Your task to perform on an android device: What's the weather going to be tomorrow? Image 0: 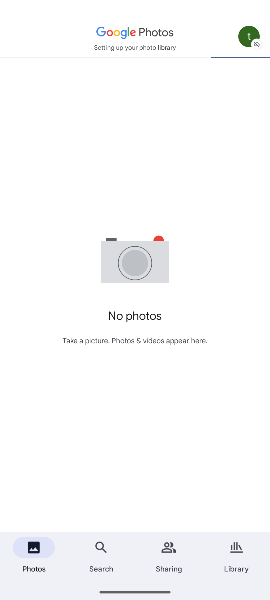
Step 0: press home button
Your task to perform on an android device: What's the weather going to be tomorrow? Image 1: 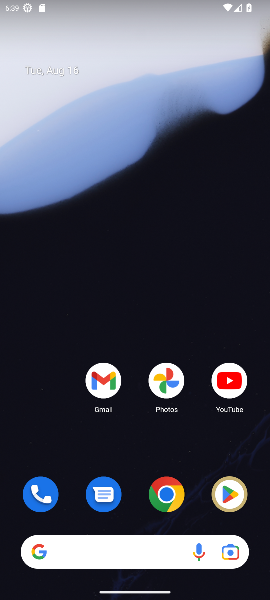
Step 1: click (85, 547)
Your task to perform on an android device: What's the weather going to be tomorrow? Image 2: 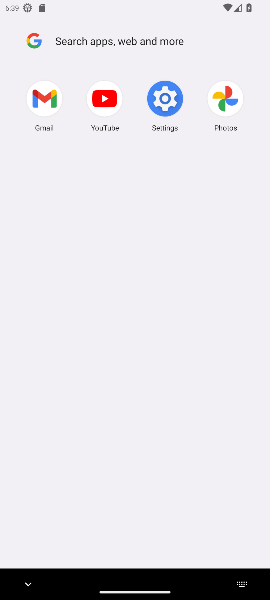
Step 2: type "What's the weather going to be tomorrow?"
Your task to perform on an android device: What's the weather going to be tomorrow? Image 3: 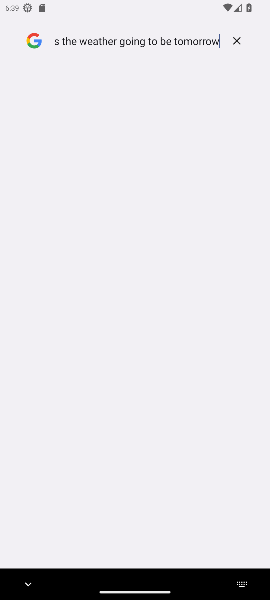
Step 3: type ""
Your task to perform on an android device: What's the weather going to be tomorrow? Image 4: 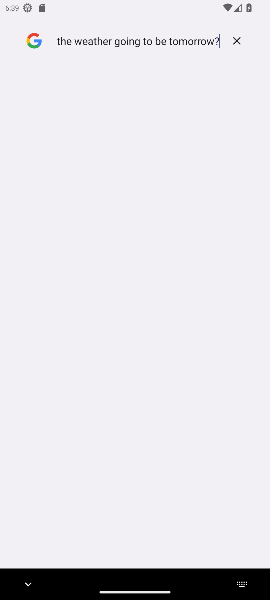
Step 4: press enter
Your task to perform on an android device: What's the weather going to be tomorrow? Image 5: 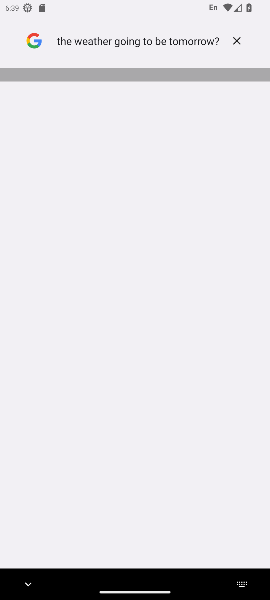
Step 5: press enter
Your task to perform on an android device: What's the weather going to be tomorrow? Image 6: 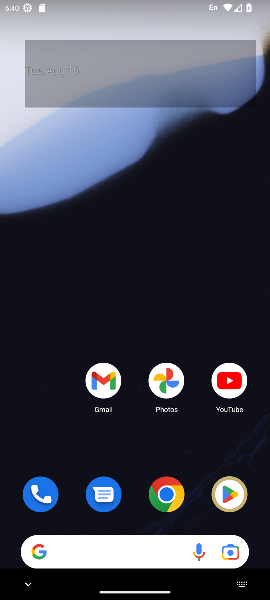
Step 6: task complete